Your task to perform on an android device: Clear all items from cart on walmart. Add logitech g pro to the cart on walmart, then select checkout. Image 0: 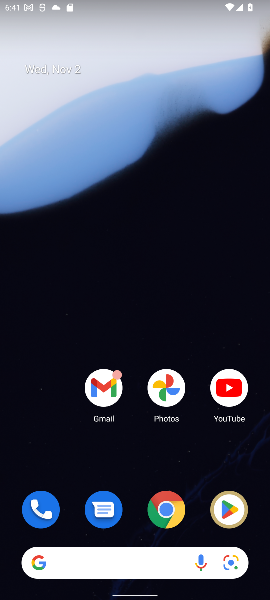
Step 0: click (116, 557)
Your task to perform on an android device: Clear all items from cart on walmart. Add logitech g pro to the cart on walmart, then select checkout. Image 1: 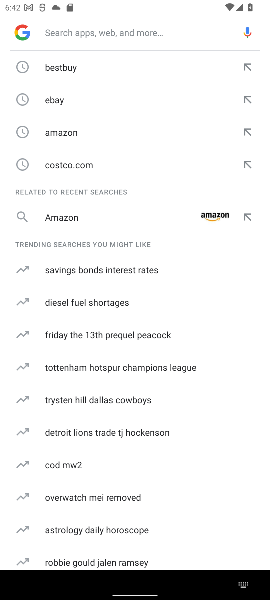
Step 1: type "walmart"
Your task to perform on an android device: Clear all items from cart on walmart. Add logitech g pro to the cart on walmart, then select checkout. Image 2: 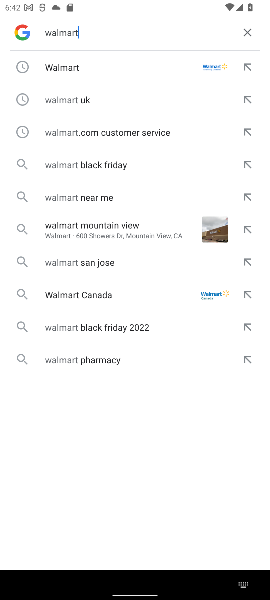
Step 2: click (66, 70)
Your task to perform on an android device: Clear all items from cart on walmart. Add logitech g pro to the cart on walmart, then select checkout. Image 3: 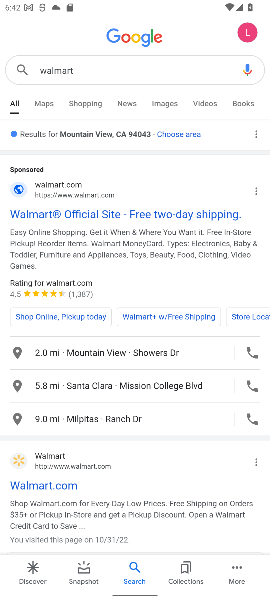
Step 3: click (57, 488)
Your task to perform on an android device: Clear all items from cart on walmart. Add logitech g pro to the cart on walmart, then select checkout. Image 4: 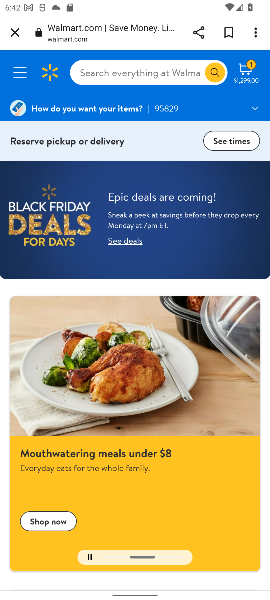
Step 4: click (246, 70)
Your task to perform on an android device: Clear all items from cart on walmart. Add logitech g pro to the cart on walmart, then select checkout. Image 5: 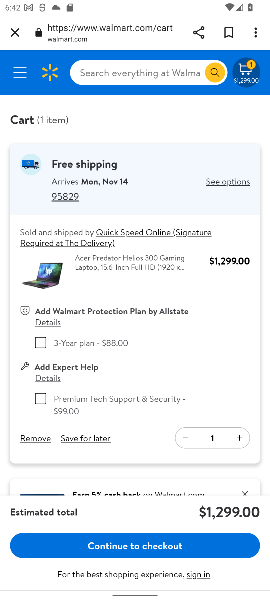
Step 5: click (35, 437)
Your task to perform on an android device: Clear all items from cart on walmart. Add logitech g pro to the cart on walmart, then select checkout. Image 6: 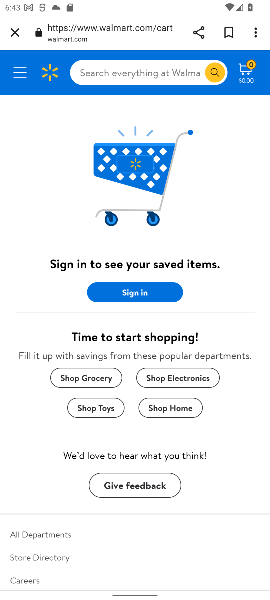
Step 6: click (112, 73)
Your task to perform on an android device: Clear all items from cart on walmart. Add logitech g pro to the cart on walmart, then select checkout. Image 7: 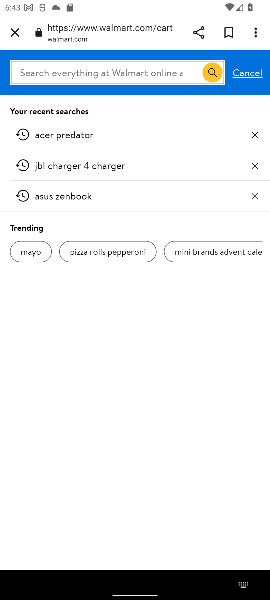
Step 7: type "logitech g pro"
Your task to perform on an android device: Clear all items from cart on walmart. Add logitech g pro to the cart on walmart, then select checkout. Image 8: 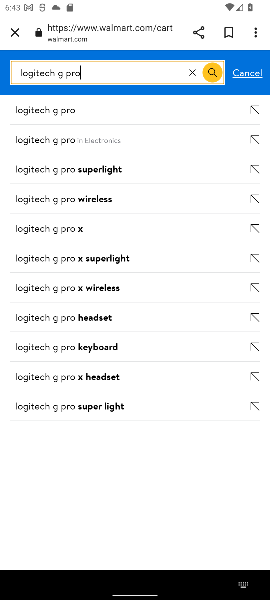
Step 8: click (64, 108)
Your task to perform on an android device: Clear all items from cart on walmart. Add logitech g pro to the cart on walmart, then select checkout. Image 9: 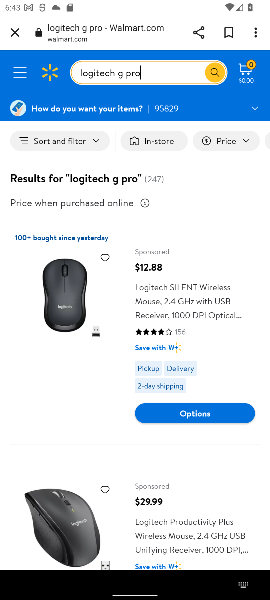
Step 9: click (181, 417)
Your task to perform on an android device: Clear all items from cart on walmart. Add logitech g pro to the cart on walmart, then select checkout. Image 10: 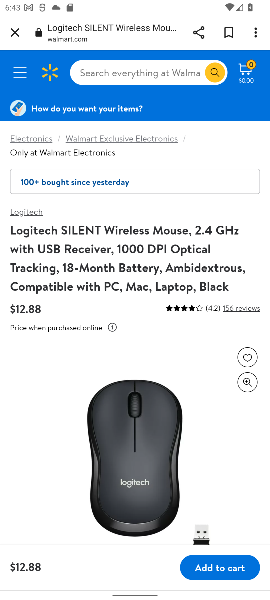
Step 10: click (220, 566)
Your task to perform on an android device: Clear all items from cart on walmart. Add logitech g pro to the cart on walmart, then select checkout. Image 11: 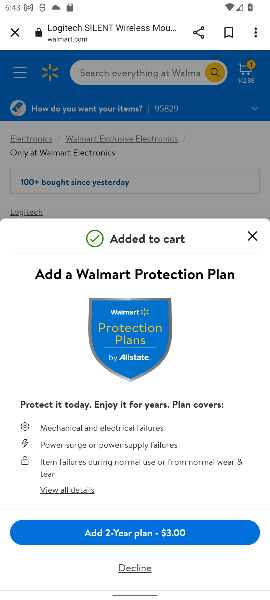
Step 11: click (253, 237)
Your task to perform on an android device: Clear all items from cart on walmart. Add logitech g pro to the cart on walmart, then select checkout. Image 12: 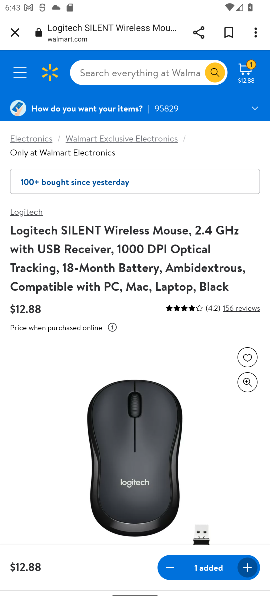
Step 12: click (252, 66)
Your task to perform on an android device: Clear all items from cart on walmart. Add logitech g pro to the cart on walmart, then select checkout. Image 13: 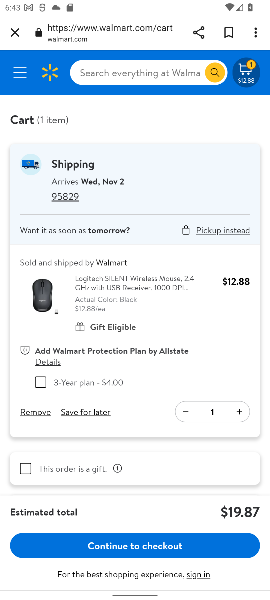
Step 13: click (135, 544)
Your task to perform on an android device: Clear all items from cart on walmart. Add logitech g pro to the cart on walmart, then select checkout. Image 14: 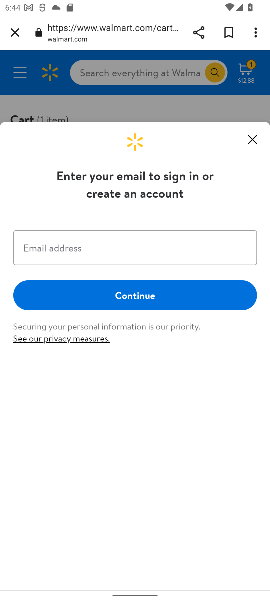
Step 14: task complete